Your task to perform on an android device: Open eBay Image 0: 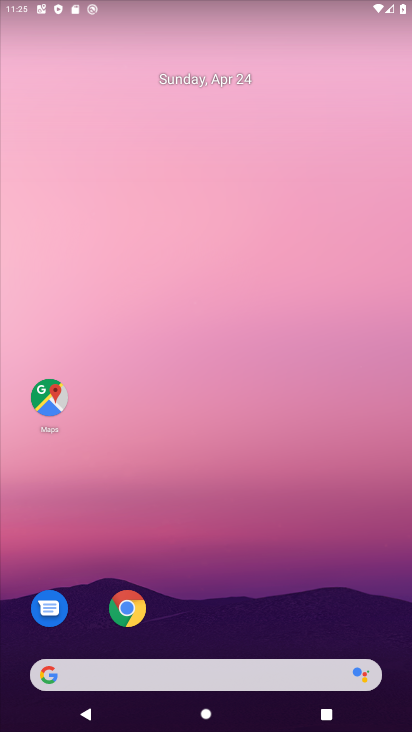
Step 0: drag from (229, 715) to (213, 126)
Your task to perform on an android device: Open eBay Image 1: 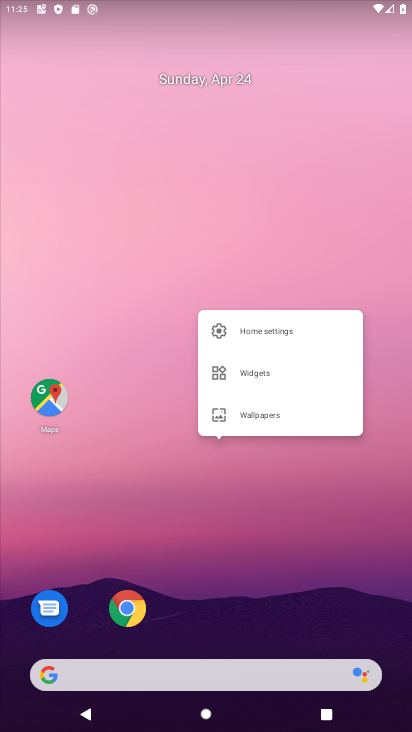
Step 1: click (185, 243)
Your task to perform on an android device: Open eBay Image 2: 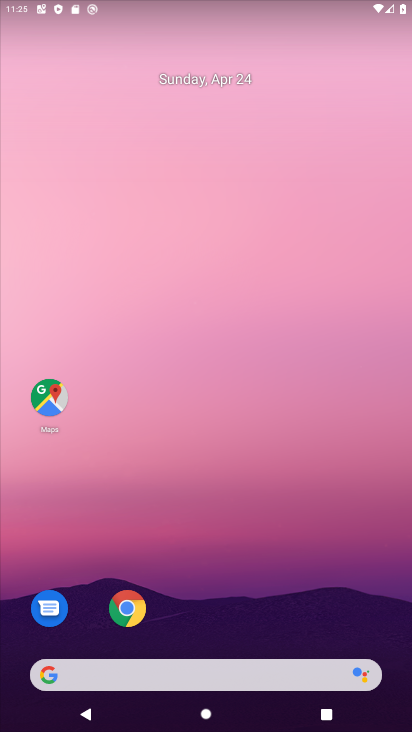
Step 2: drag from (226, 709) to (226, 107)
Your task to perform on an android device: Open eBay Image 3: 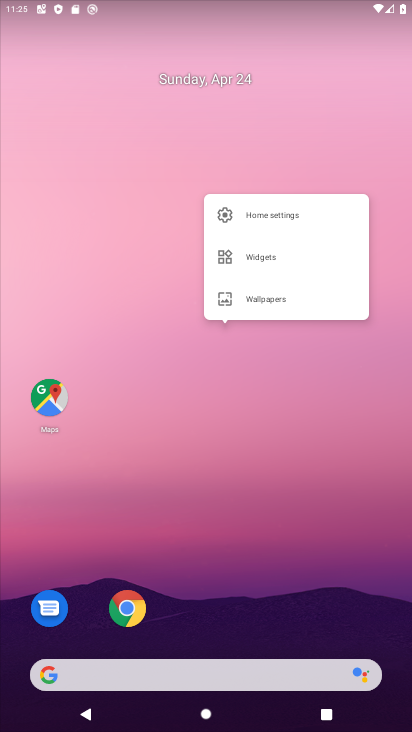
Step 3: click (250, 570)
Your task to perform on an android device: Open eBay Image 4: 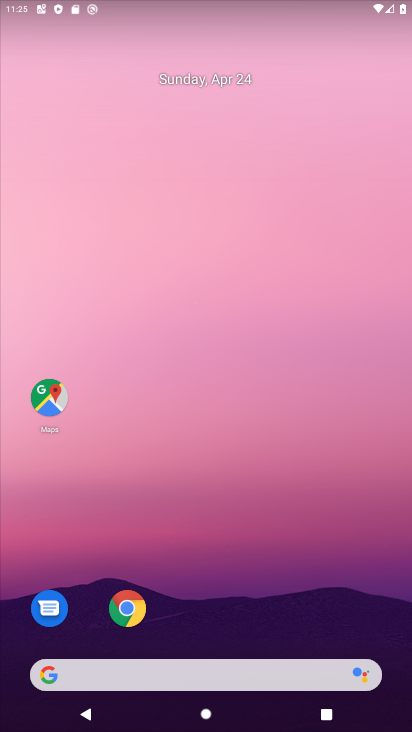
Step 4: drag from (221, 723) to (222, 125)
Your task to perform on an android device: Open eBay Image 5: 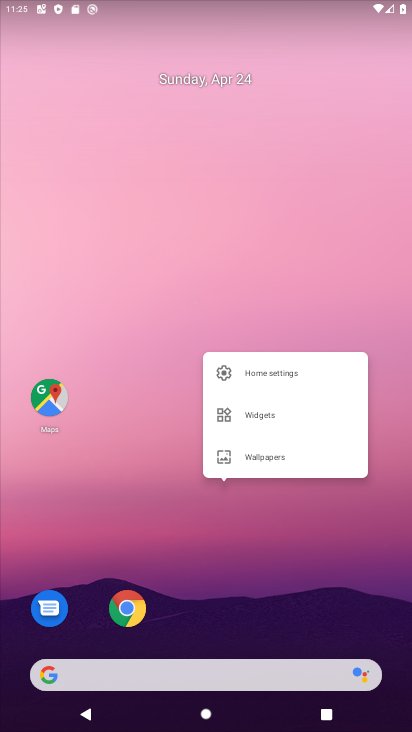
Step 5: click (223, 289)
Your task to perform on an android device: Open eBay Image 6: 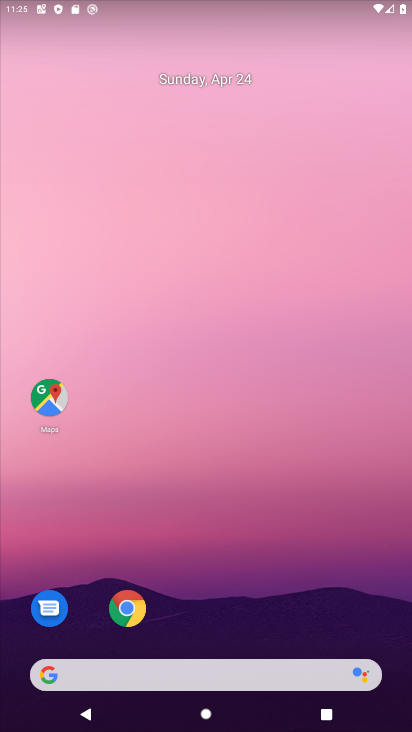
Step 6: drag from (226, 670) to (206, 265)
Your task to perform on an android device: Open eBay Image 7: 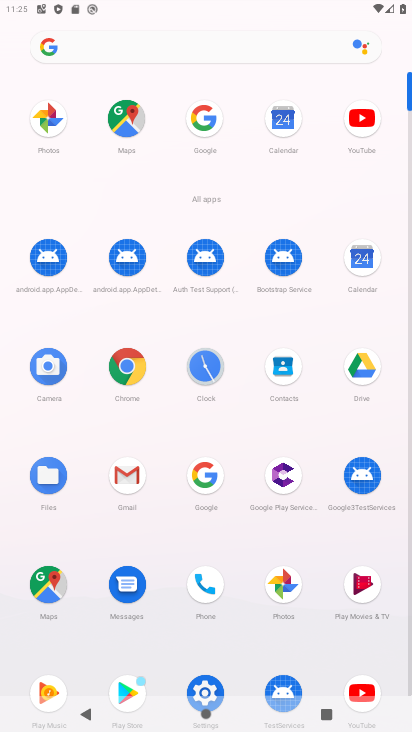
Step 7: click (131, 366)
Your task to perform on an android device: Open eBay Image 8: 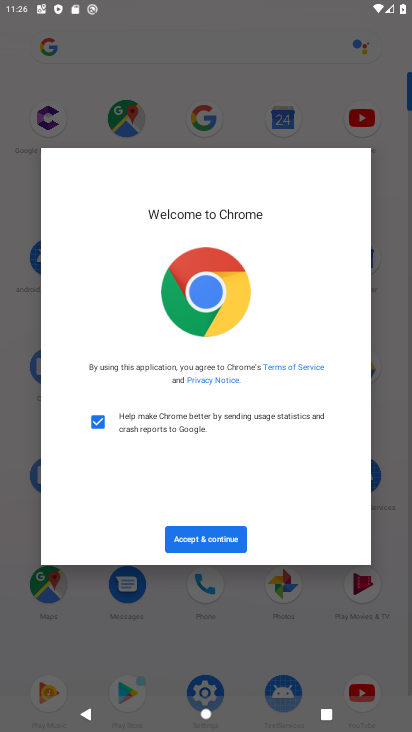
Step 8: click (228, 536)
Your task to perform on an android device: Open eBay Image 9: 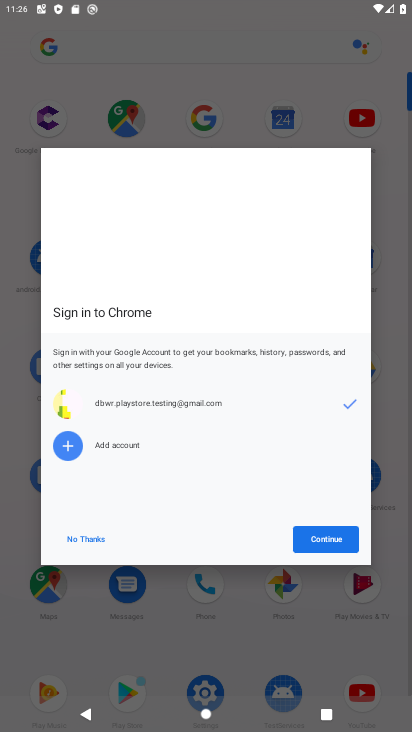
Step 9: click (314, 539)
Your task to perform on an android device: Open eBay Image 10: 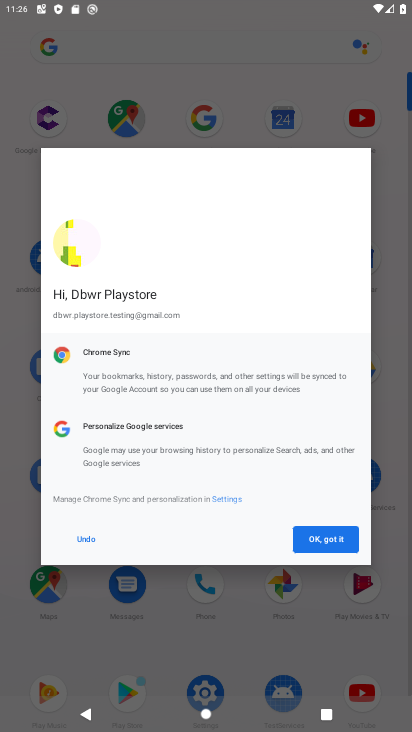
Step 10: click (314, 539)
Your task to perform on an android device: Open eBay Image 11: 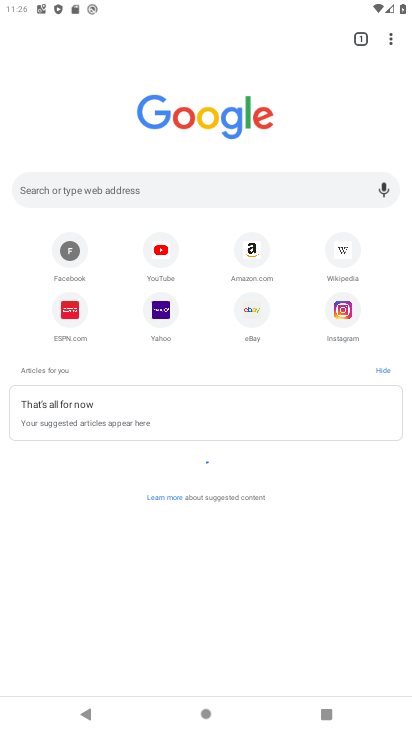
Step 11: click (184, 185)
Your task to perform on an android device: Open eBay Image 12: 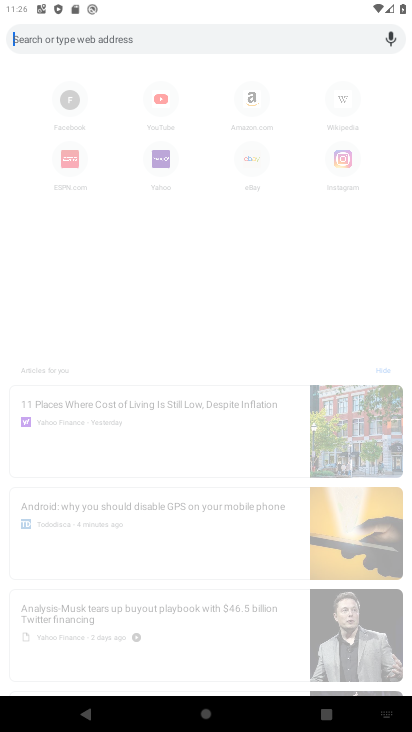
Step 12: type "eBay"
Your task to perform on an android device: Open eBay Image 13: 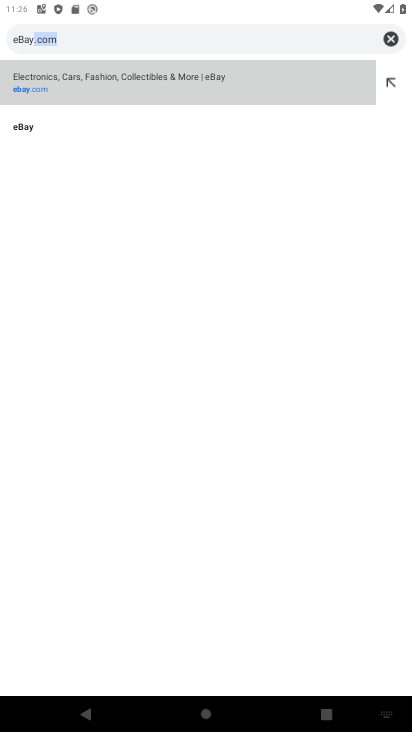
Step 13: click (177, 84)
Your task to perform on an android device: Open eBay Image 14: 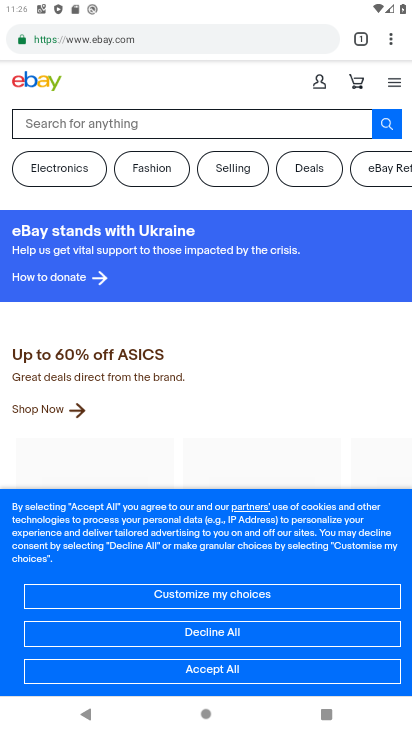
Step 14: task complete